Your task to perform on an android device: toggle show notifications on the lock screen Image 0: 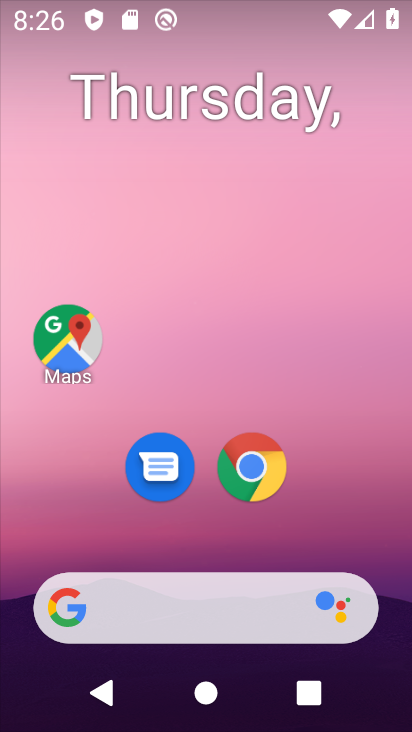
Step 0: drag from (344, 544) to (309, 74)
Your task to perform on an android device: toggle show notifications on the lock screen Image 1: 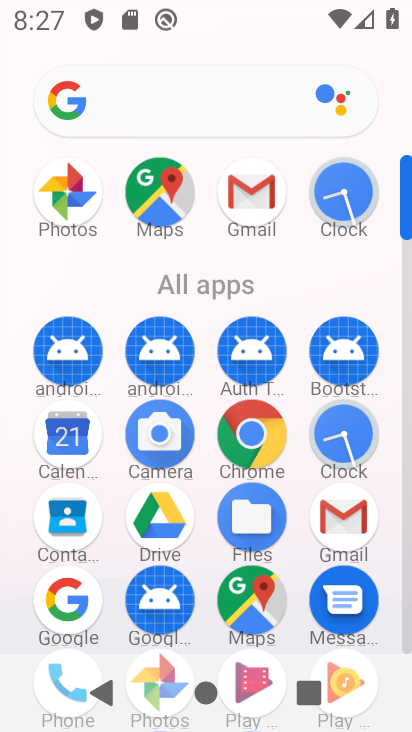
Step 1: drag from (199, 558) to (180, 276)
Your task to perform on an android device: toggle show notifications on the lock screen Image 2: 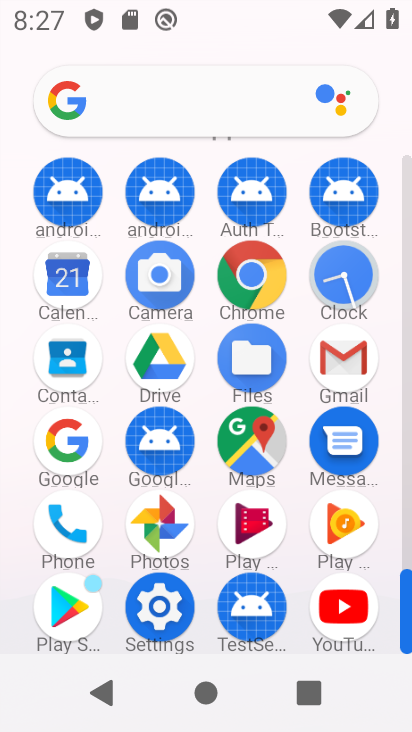
Step 2: click (172, 588)
Your task to perform on an android device: toggle show notifications on the lock screen Image 3: 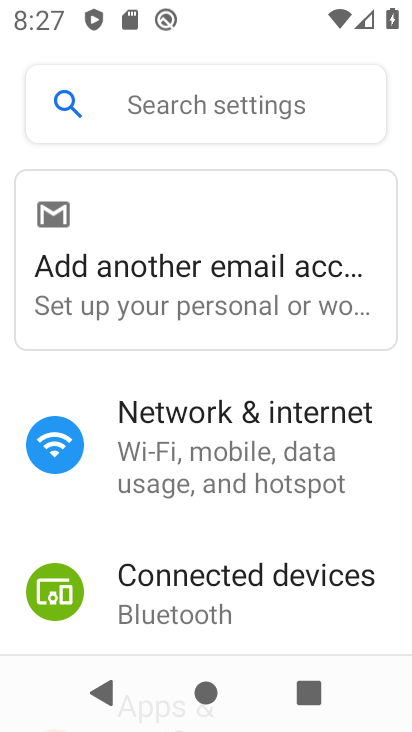
Step 3: drag from (85, 531) to (62, 122)
Your task to perform on an android device: toggle show notifications on the lock screen Image 4: 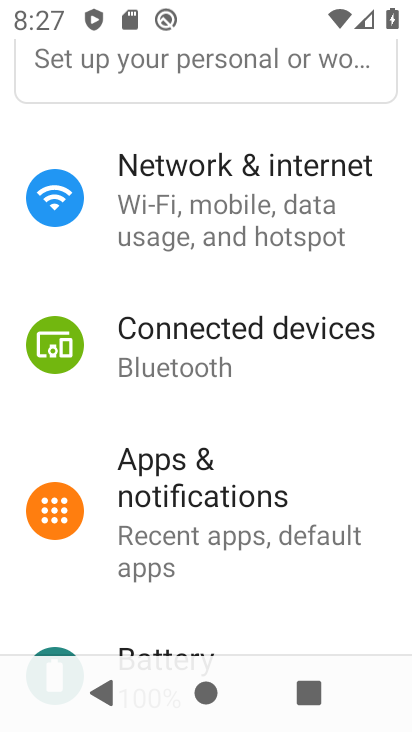
Step 4: click (253, 525)
Your task to perform on an android device: toggle show notifications on the lock screen Image 5: 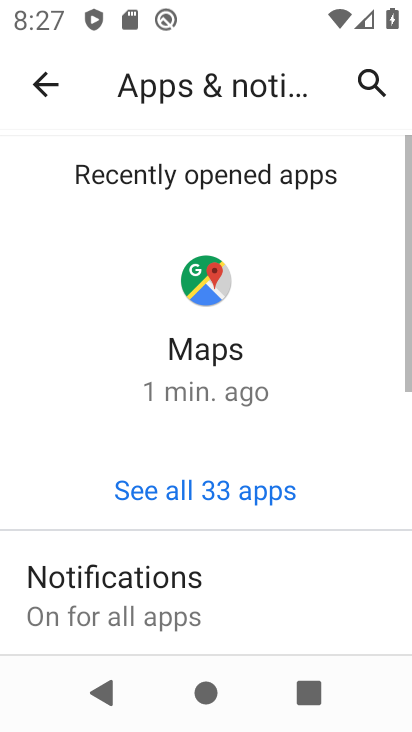
Step 5: click (174, 585)
Your task to perform on an android device: toggle show notifications on the lock screen Image 6: 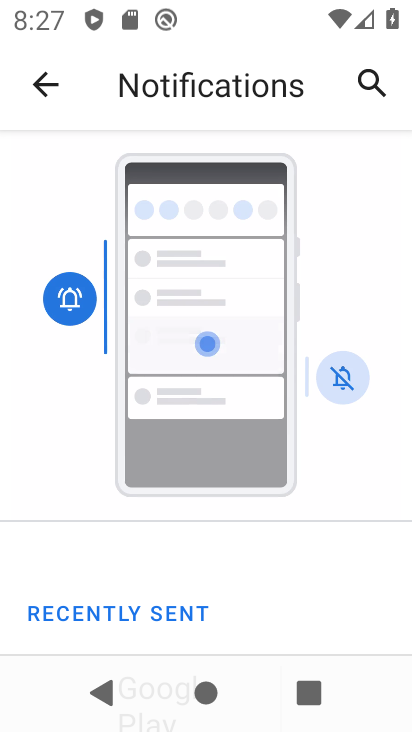
Step 6: drag from (151, 617) to (169, 310)
Your task to perform on an android device: toggle show notifications on the lock screen Image 7: 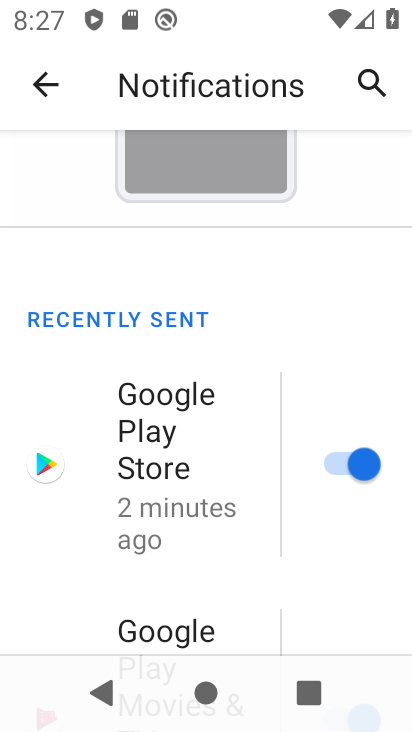
Step 7: drag from (179, 473) to (192, 218)
Your task to perform on an android device: toggle show notifications on the lock screen Image 8: 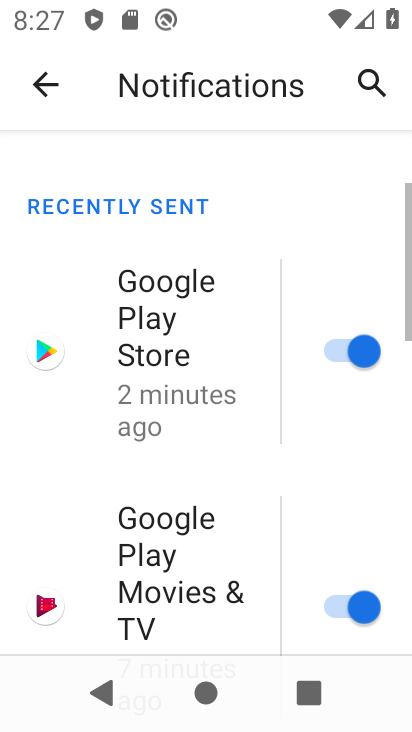
Step 8: drag from (212, 529) to (181, 213)
Your task to perform on an android device: toggle show notifications on the lock screen Image 9: 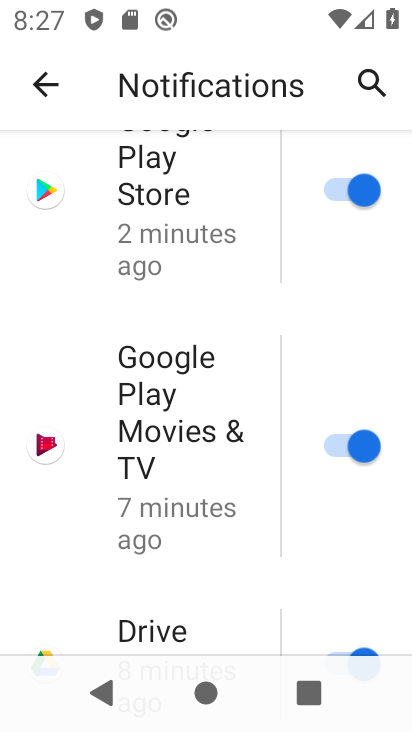
Step 9: drag from (209, 453) to (177, 265)
Your task to perform on an android device: toggle show notifications on the lock screen Image 10: 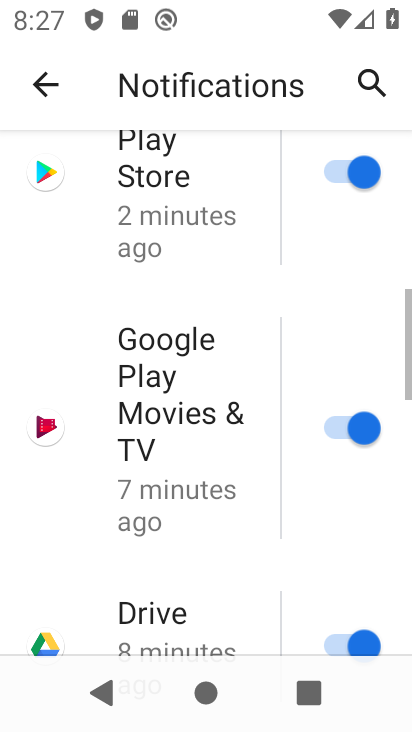
Step 10: drag from (217, 472) to (228, 281)
Your task to perform on an android device: toggle show notifications on the lock screen Image 11: 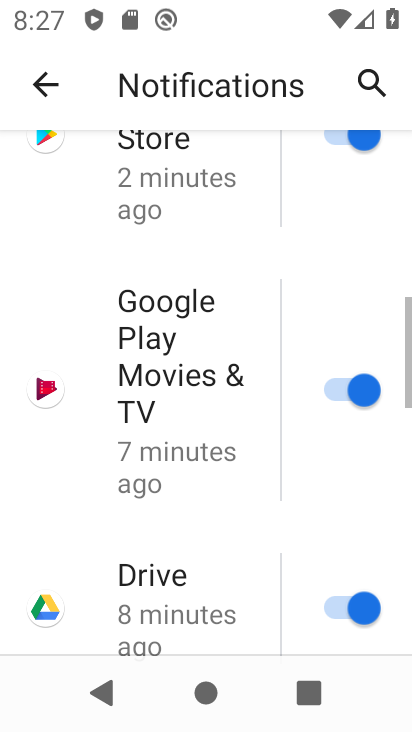
Step 11: drag from (198, 438) to (196, 254)
Your task to perform on an android device: toggle show notifications on the lock screen Image 12: 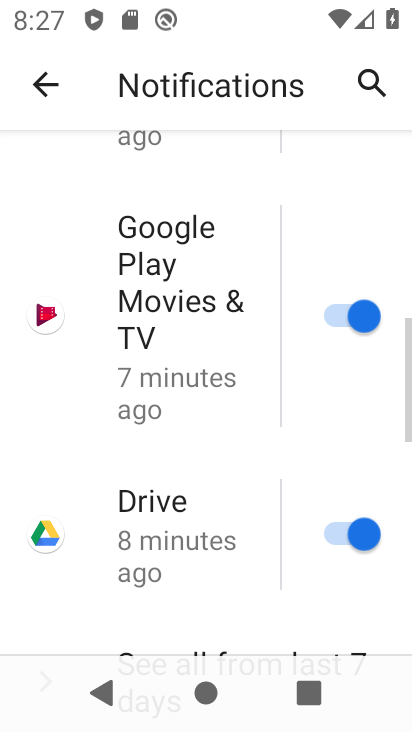
Step 12: drag from (228, 561) to (201, 220)
Your task to perform on an android device: toggle show notifications on the lock screen Image 13: 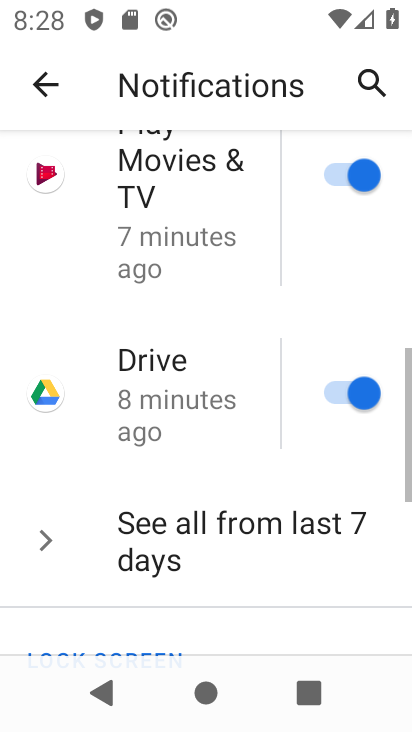
Step 13: drag from (160, 526) to (124, 287)
Your task to perform on an android device: toggle show notifications on the lock screen Image 14: 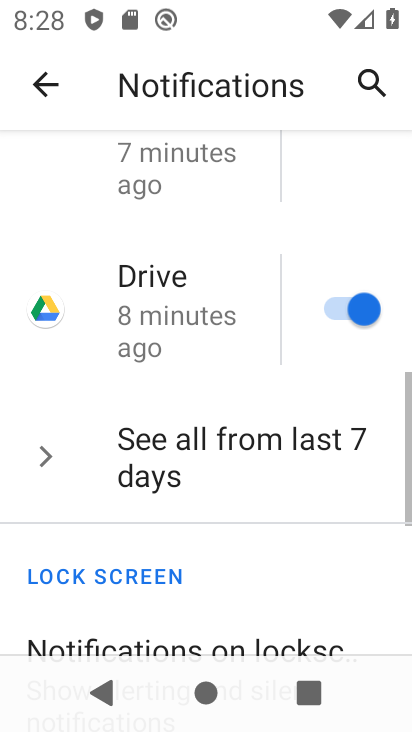
Step 14: drag from (131, 563) to (117, 315)
Your task to perform on an android device: toggle show notifications on the lock screen Image 15: 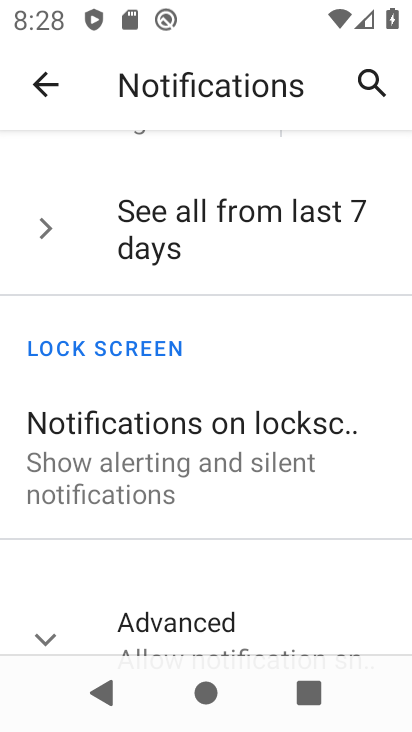
Step 15: click (238, 436)
Your task to perform on an android device: toggle show notifications on the lock screen Image 16: 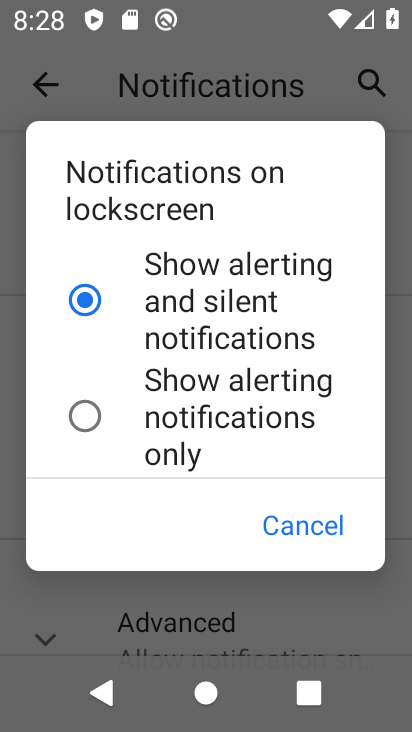
Step 16: click (233, 370)
Your task to perform on an android device: toggle show notifications on the lock screen Image 17: 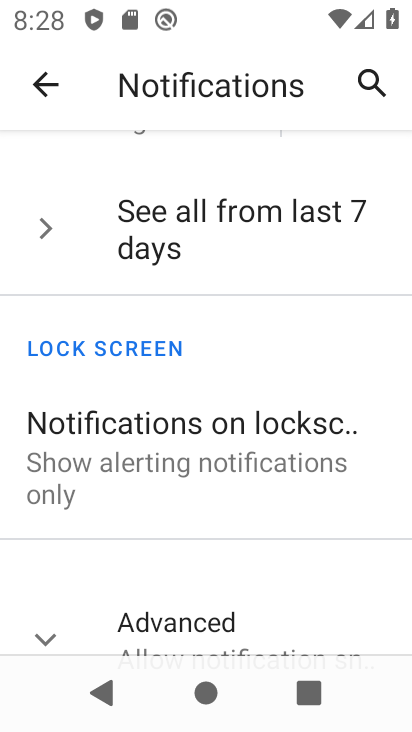
Step 17: task complete